Your task to perform on an android device: toggle sleep mode Image 0: 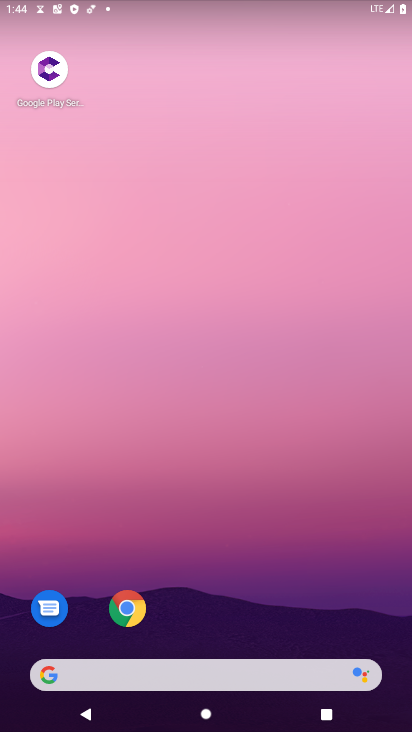
Step 0: drag from (318, 621) to (324, 4)
Your task to perform on an android device: toggle sleep mode Image 1: 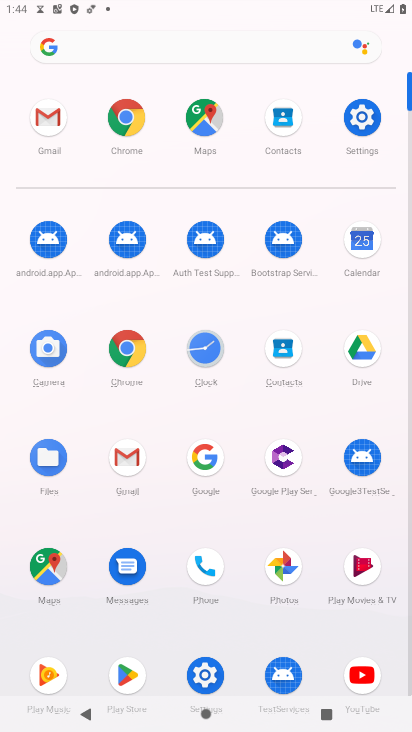
Step 1: click (357, 123)
Your task to perform on an android device: toggle sleep mode Image 2: 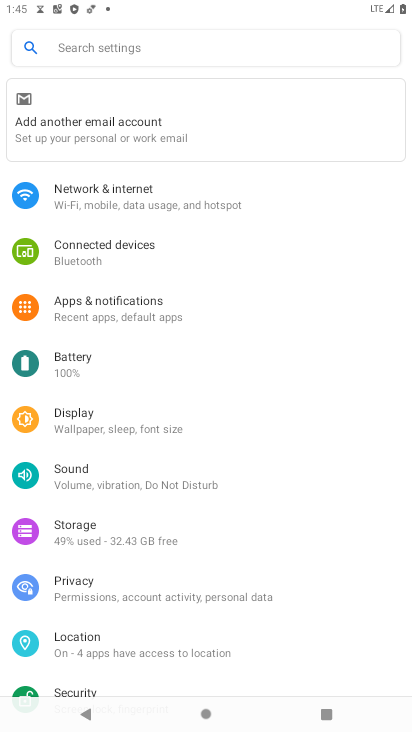
Step 2: task complete